Your task to perform on an android device: Go to battery settings Image 0: 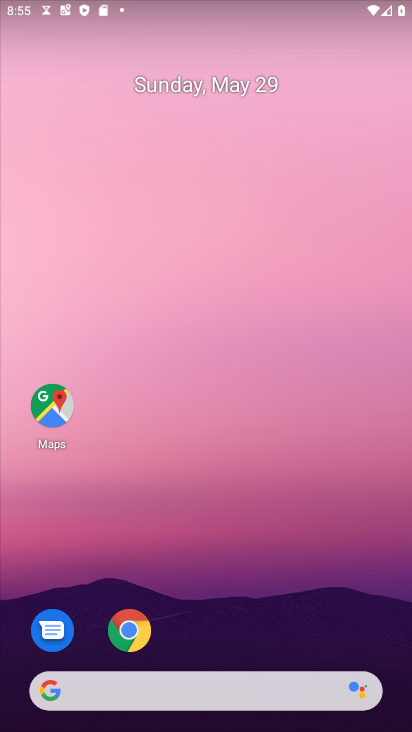
Step 0: drag from (244, 619) to (213, 180)
Your task to perform on an android device: Go to battery settings Image 1: 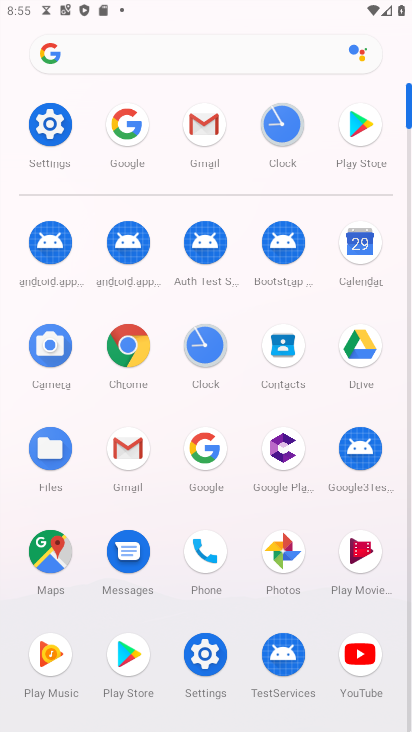
Step 1: click (40, 122)
Your task to perform on an android device: Go to battery settings Image 2: 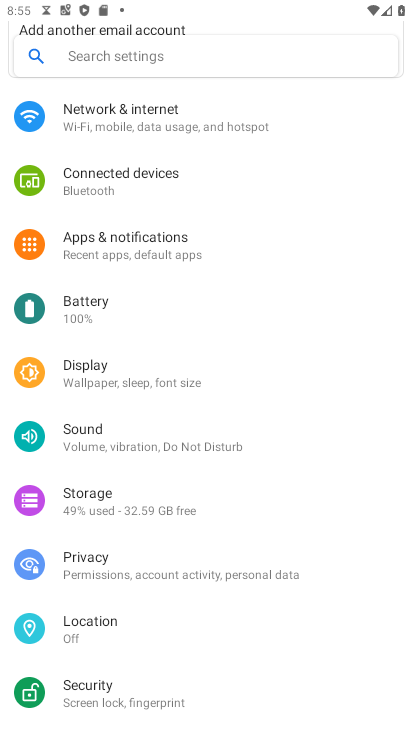
Step 2: click (103, 329)
Your task to perform on an android device: Go to battery settings Image 3: 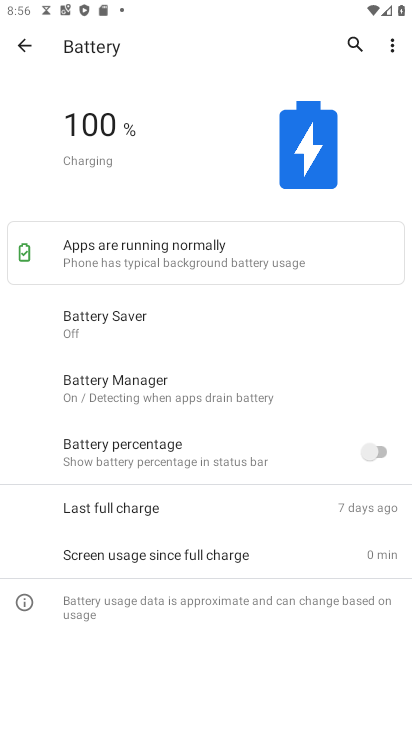
Step 3: task complete